Your task to perform on an android device: Open Chrome and go to the settings page Image 0: 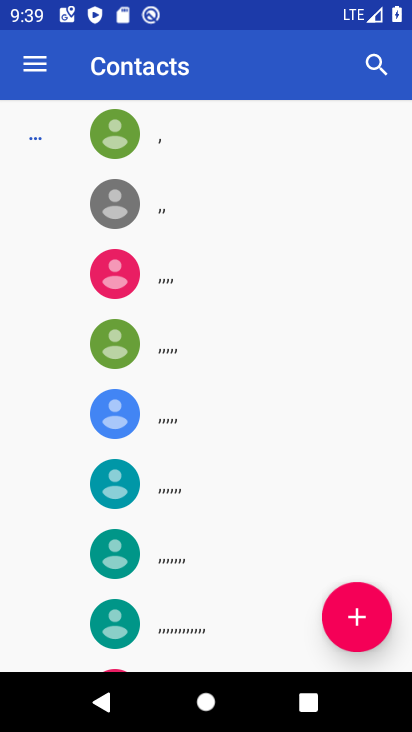
Step 0: press home button
Your task to perform on an android device: Open Chrome and go to the settings page Image 1: 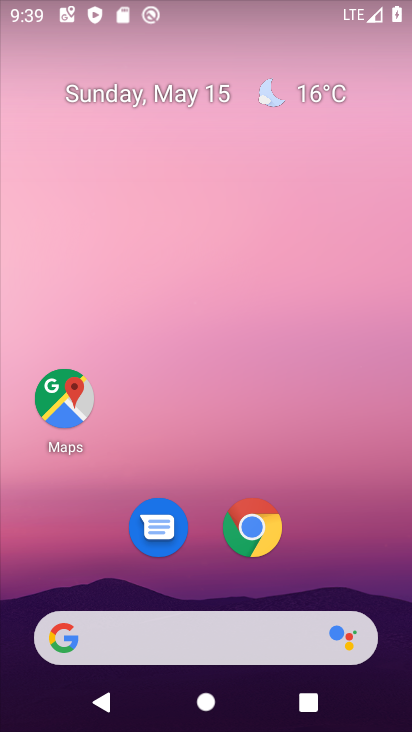
Step 1: click (262, 537)
Your task to perform on an android device: Open Chrome and go to the settings page Image 2: 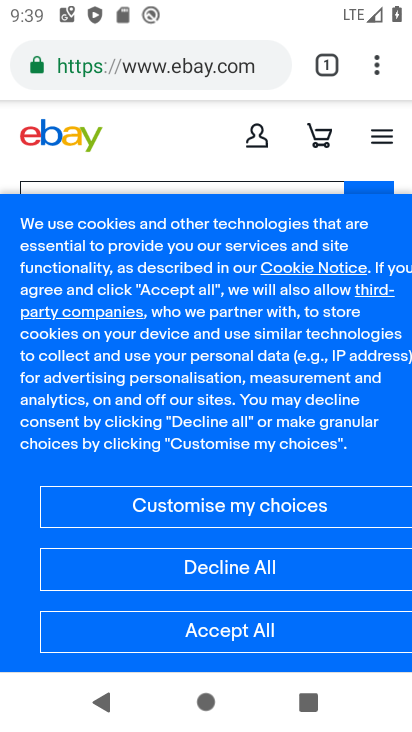
Step 2: click (380, 69)
Your task to perform on an android device: Open Chrome and go to the settings page Image 3: 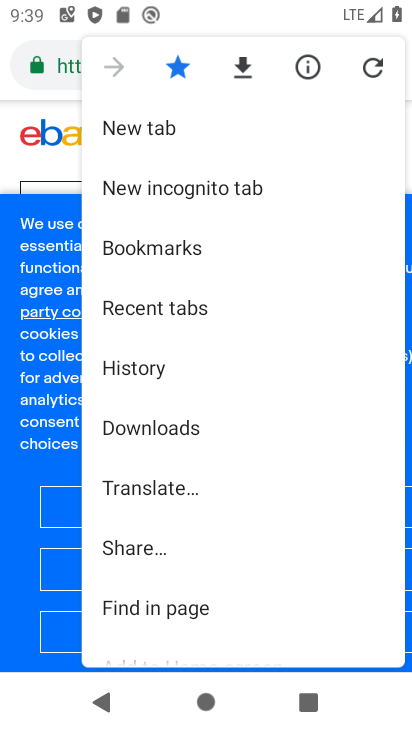
Step 3: drag from (234, 592) to (236, 185)
Your task to perform on an android device: Open Chrome and go to the settings page Image 4: 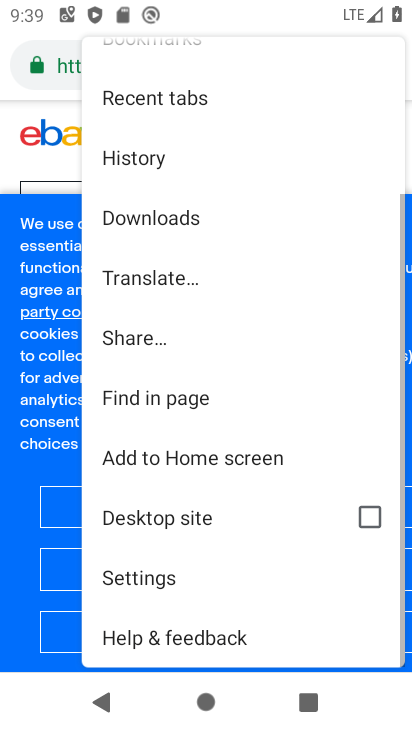
Step 4: click (132, 575)
Your task to perform on an android device: Open Chrome and go to the settings page Image 5: 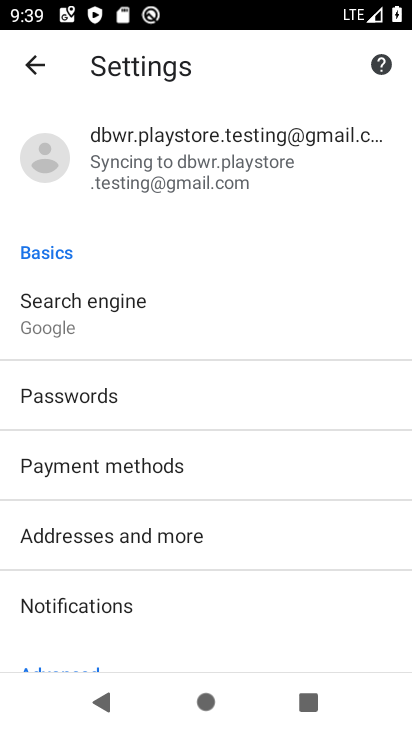
Step 5: task complete